Your task to perform on an android device: Go to eBay Image 0: 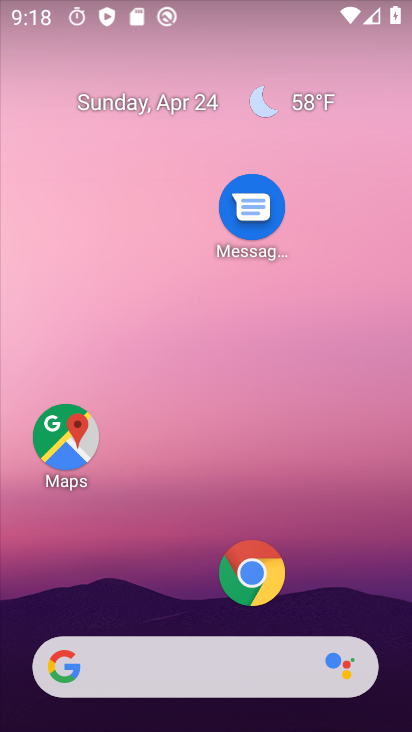
Step 0: click (263, 570)
Your task to perform on an android device: Go to eBay Image 1: 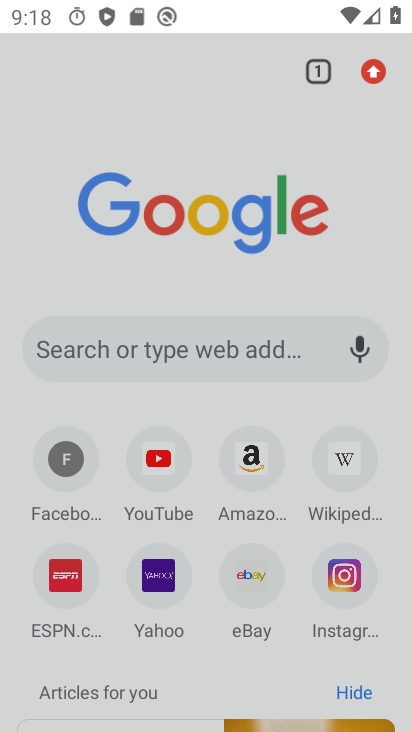
Step 1: click (224, 346)
Your task to perform on an android device: Go to eBay Image 2: 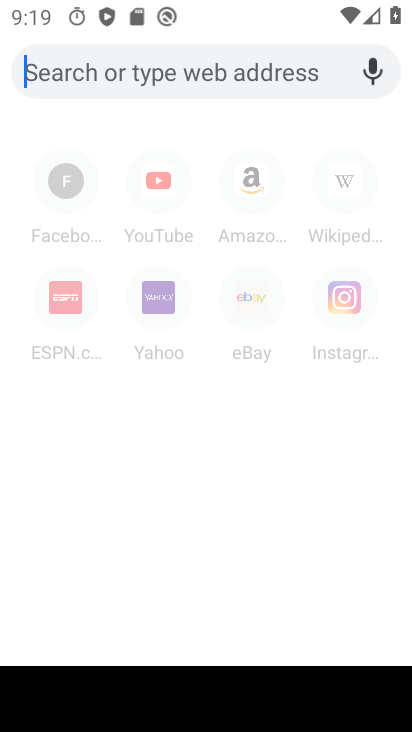
Step 2: click (255, 307)
Your task to perform on an android device: Go to eBay Image 3: 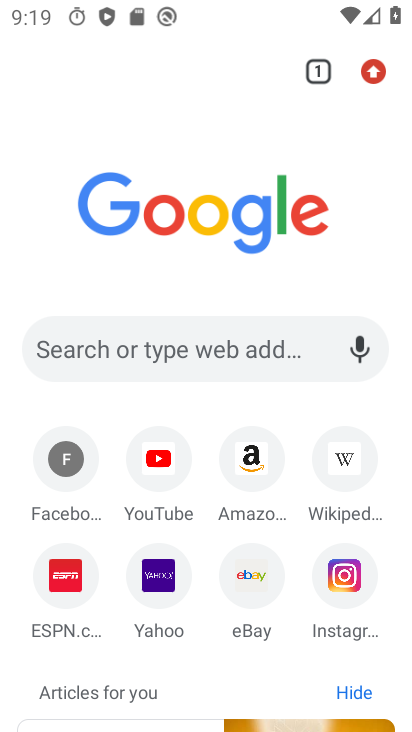
Step 3: click (259, 584)
Your task to perform on an android device: Go to eBay Image 4: 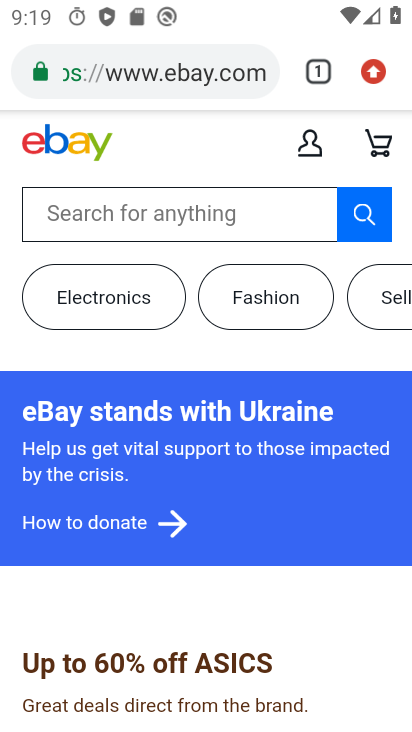
Step 4: task complete